Your task to perform on an android device: Open Youtube and go to the subscriptions tab Image 0: 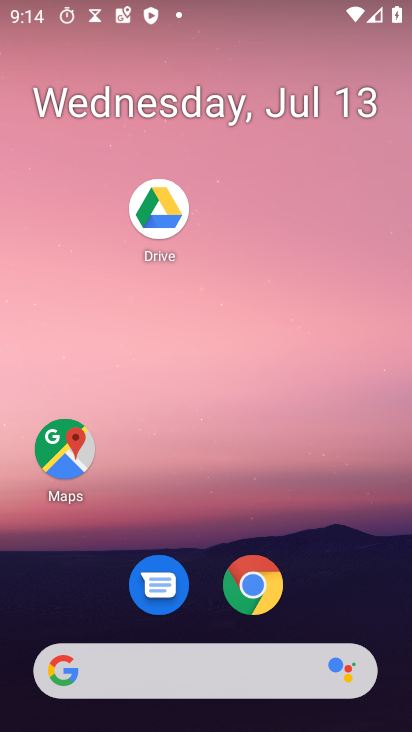
Step 0: drag from (133, 675) to (380, 89)
Your task to perform on an android device: Open Youtube and go to the subscriptions tab Image 1: 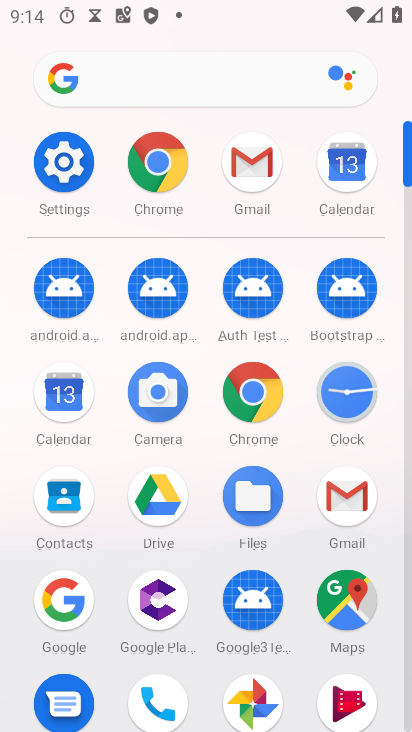
Step 1: drag from (215, 607) to (345, 42)
Your task to perform on an android device: Open Youtube and go to the subscriptions tab Image 2: 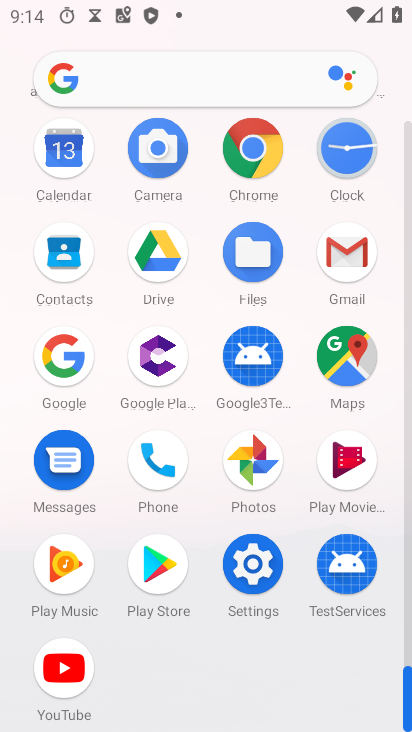
Step 2: click (79, 674)
Your task to perform on an android device: Open Youtube and go to the subscriptions tab Image 3: 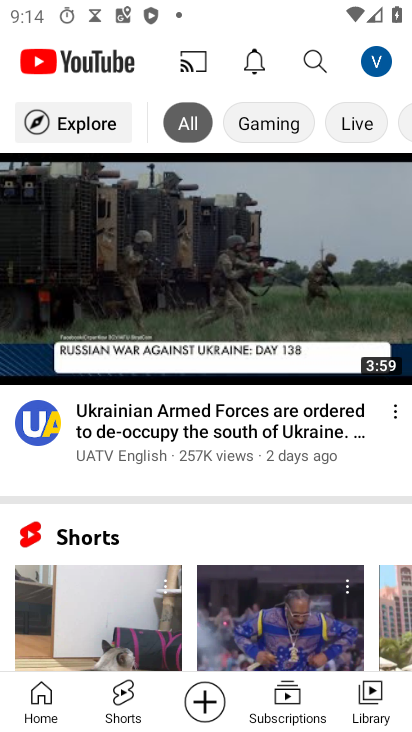
Step 3: click (280, 710)
Your task to perform on an android device: Open Youtube and go to the subscriptions tab Image 4: 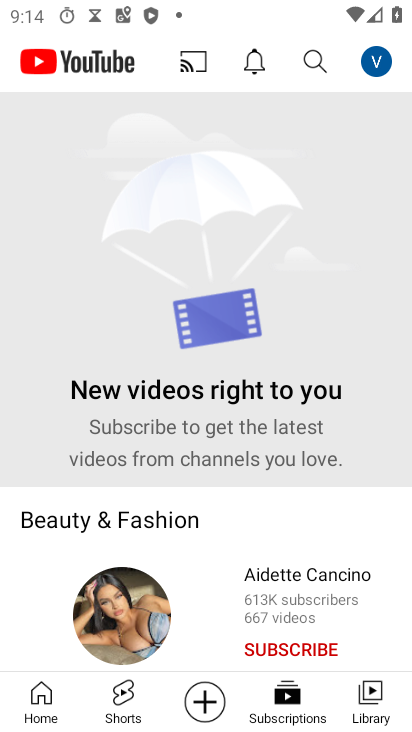
Step 4: task complete